Your task to perform on an android device: set default search engine in the chrome app Image 0: 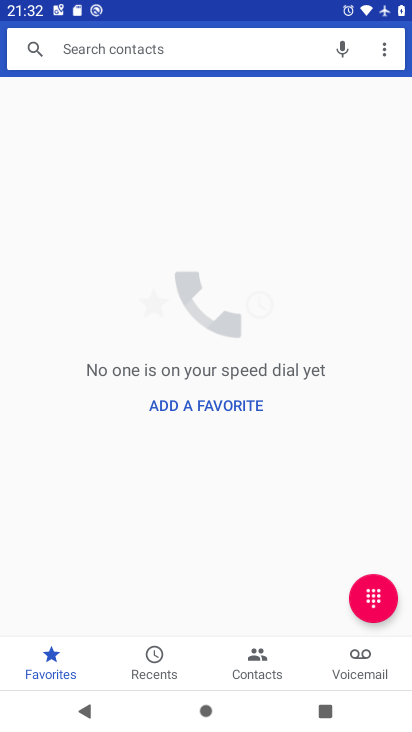
Step 0: press home button
Your task to perform on an android device: set default search engine in the chrome app Image 1: 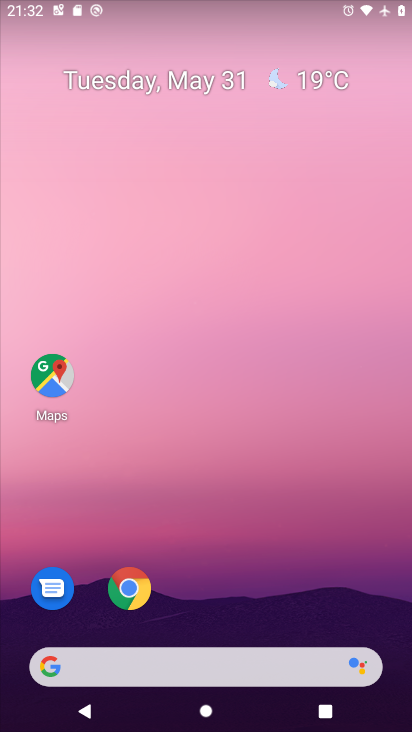
Step 1: click (128, 594)
Your task to perform on an android device: set default search engine in the chrome app Image 2: 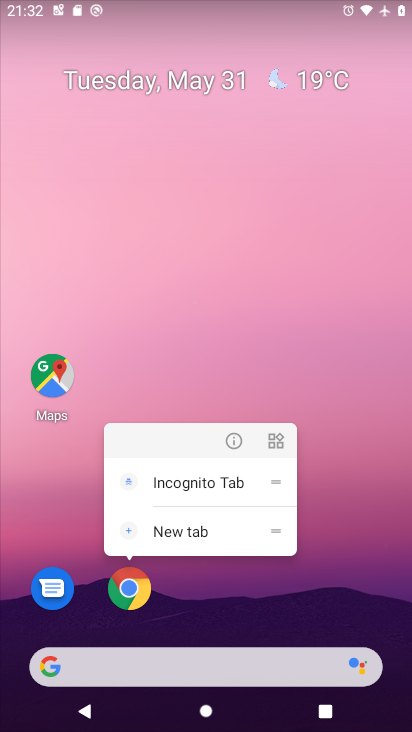
Step 2: click (128, 592)
Your task to perform on an android device: set default search engine in the chrome app Image 3: 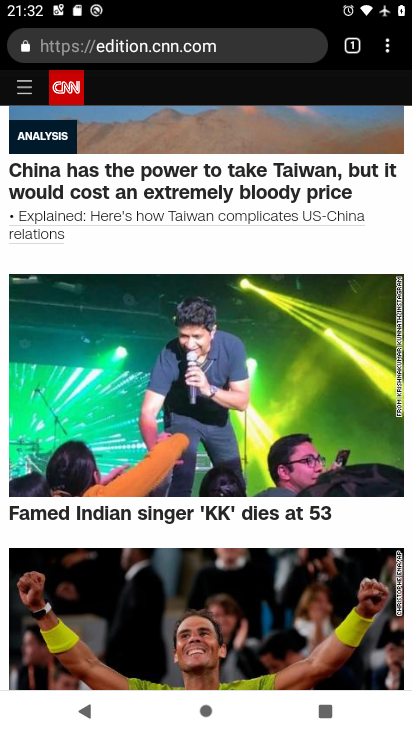
Step 3: drag from (386, 51) to (246, 510)
Your task to perform on an android device: set default search engine in the chrome app Image 4: 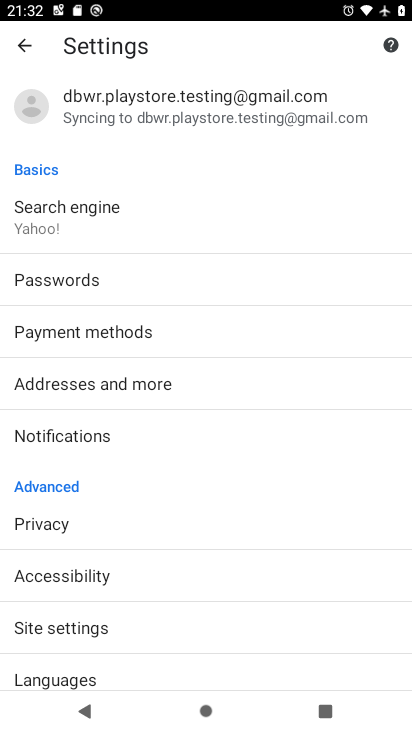
Step 4: click (60, 220)
Your task to perform on an android device: set default search engine in the chrome app Image 5: 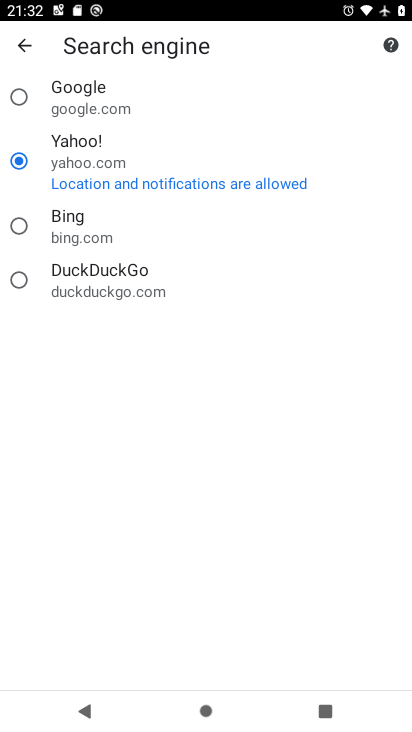
Step 5: click (20, 99)
Your task to perform on an android device: set default search engine in the chrome app Image 6: 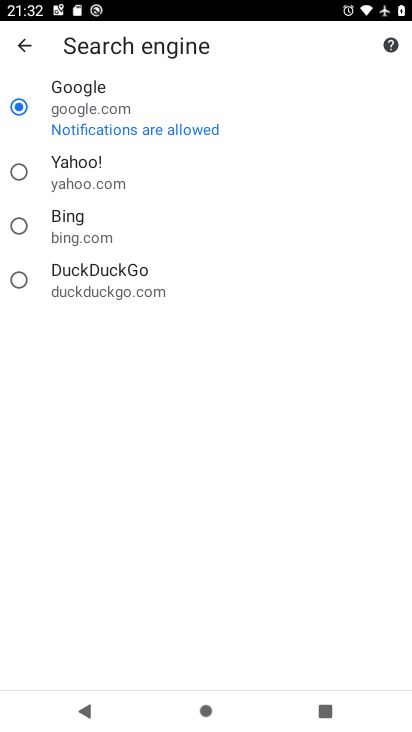
Step 6: task complete